Your task to perform on an android device: Play the last video I watched on Youtube Image 0: 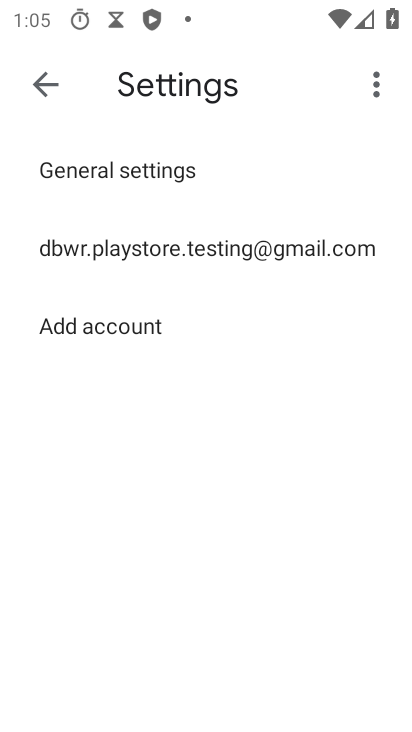
Step 0: press home button
Your task to perform on an android device: Play the last video I watched on Youtube Image 1: 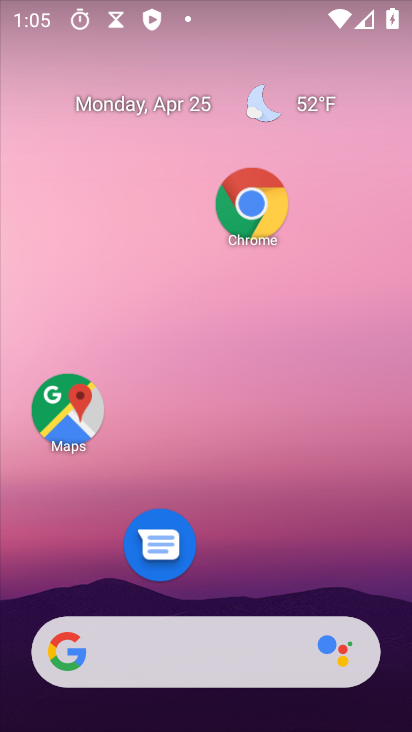
Step 1: drag from (297, 678) to (396, 185)
Your task to perform on an android device: Play the last video I watched on Youtube Image 2: 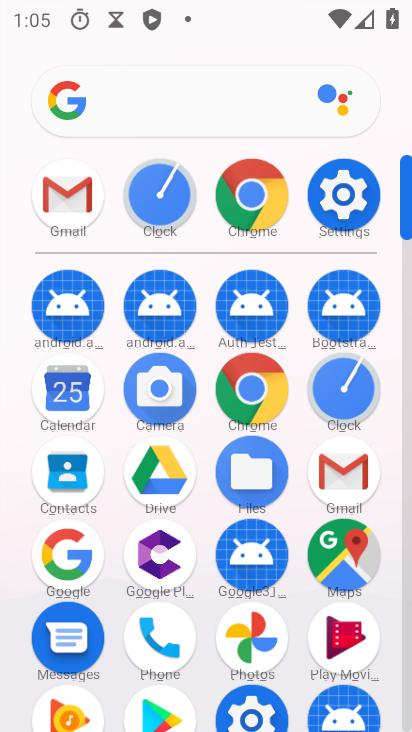
Step 2: drag from (206, 586) to (222, 448)
Your task to perform on an android device: Play the last video I watched on Youtube Image 3: 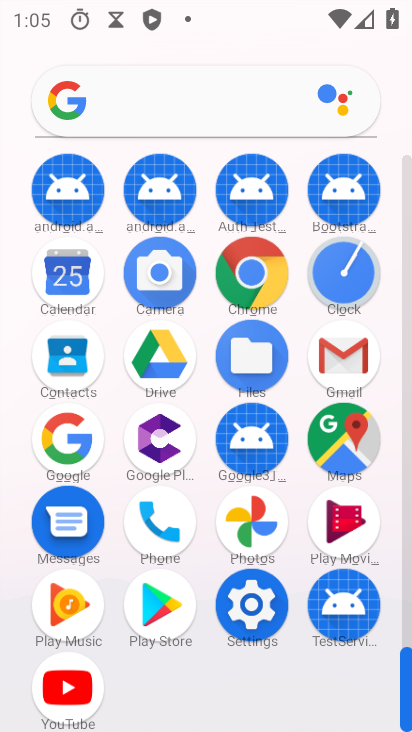
Step 3: click (73, 667)
Your task to perform on an android device: Play the last video I watched on Youtube Image 4: 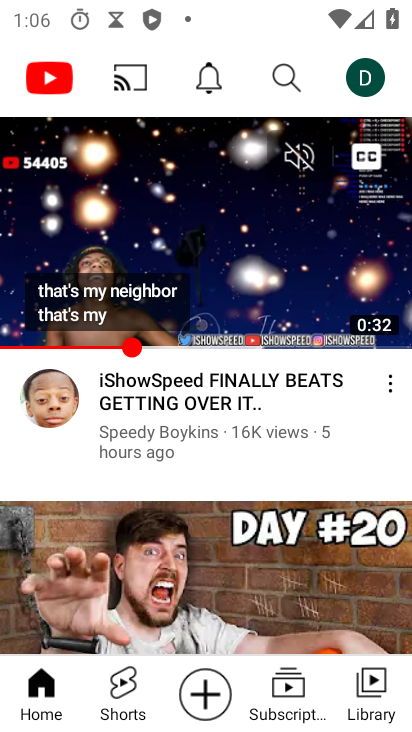
Step 4: click (357, 71)
Your task to perform on an android device: Play the last video I watched on Youtube Image 5: 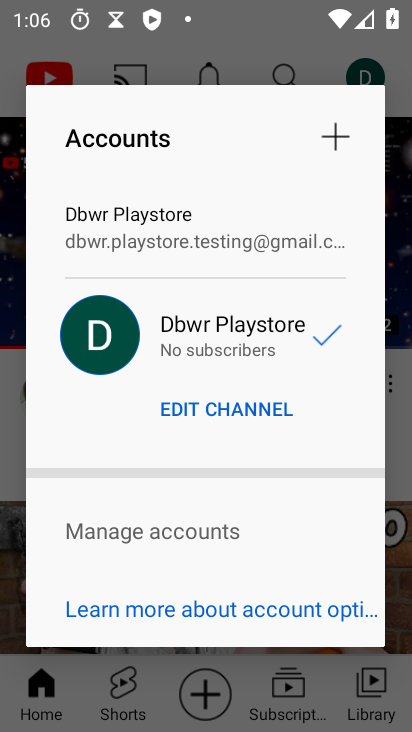
Step 5: click (245, 349)
Your task to perform on an android device: Play the last video I watched on Youtube Image 6: 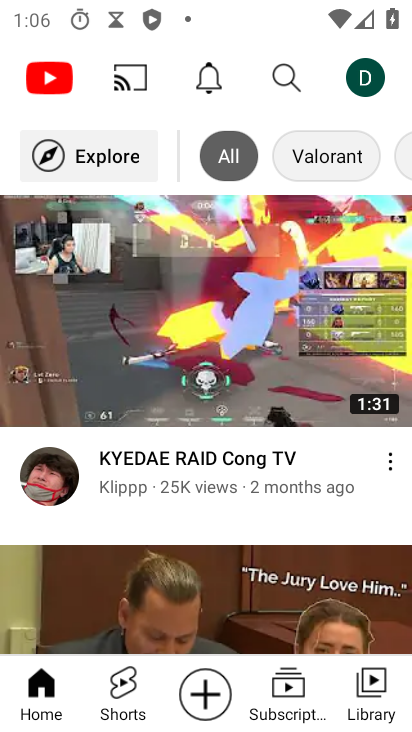
Step 6: click (368, 718)
Your task to perform on an android device: Play the last video I watched on Youtube Image 7: 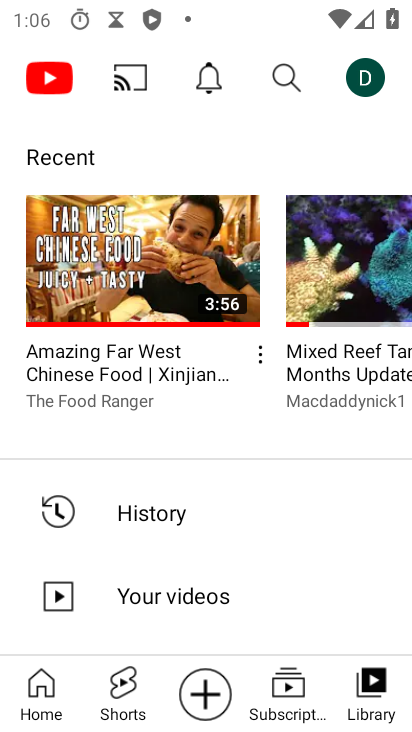
Step 7: click (185, 299)
Your task to perform on an android device: Play the last video I watched on Youtube Image 8: 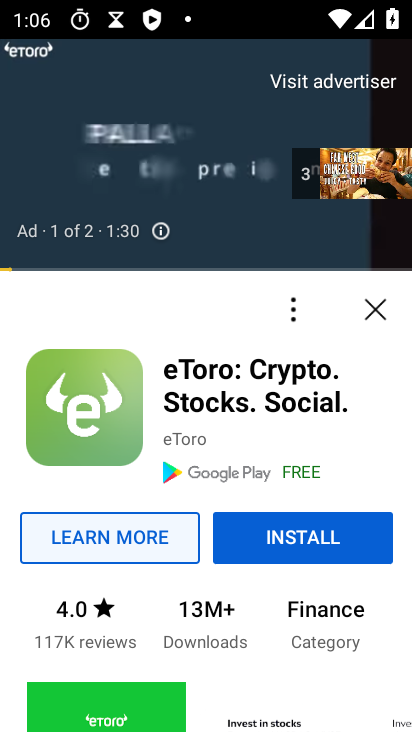
Step 8: click (371, 312)
Your task to perform on an android device: Play the last video I watched on Youtube Image 9: 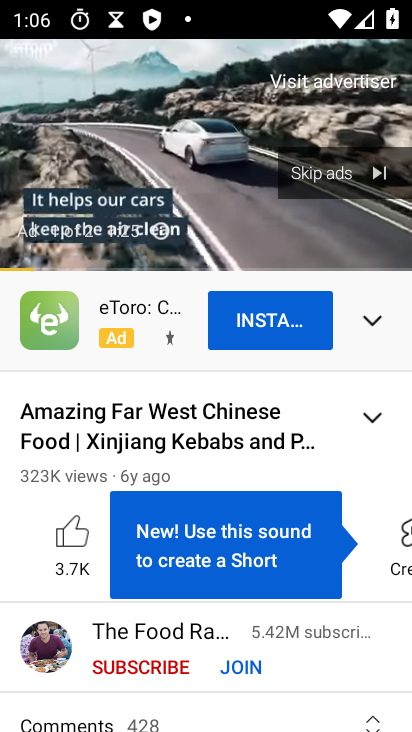
Step 9: click (347, 177)
Your task to perform on an android device: Play the last video I watched on Youtube Image 10: 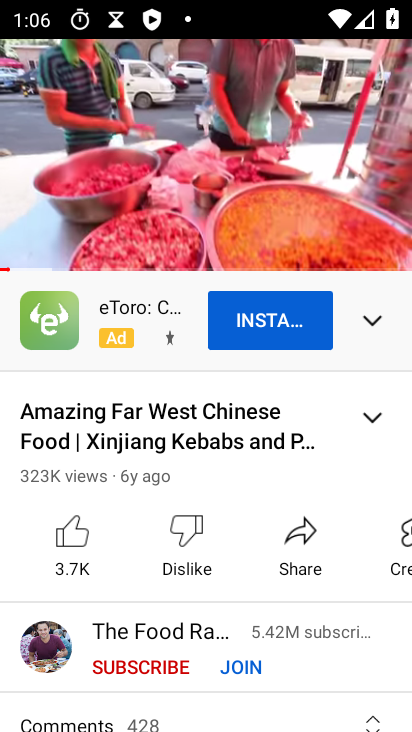
Step 10: click (275, 132)
Your task to perform on an android device: Play the last video I watched on Youtube Image 11: 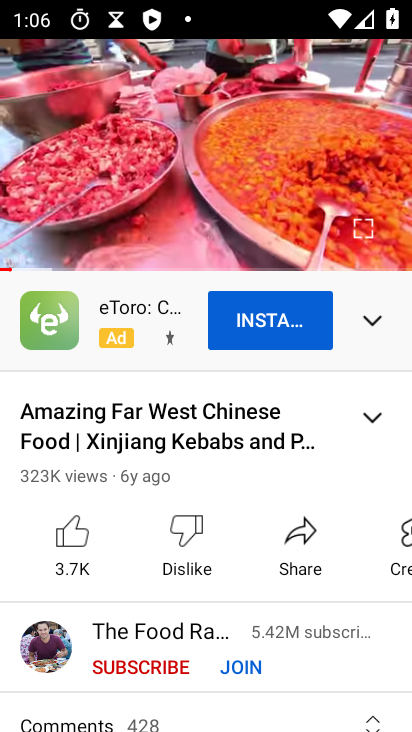
Step 11: task complete